Your task to perform on an android device: turn pop-ups off in chrome Image 0: 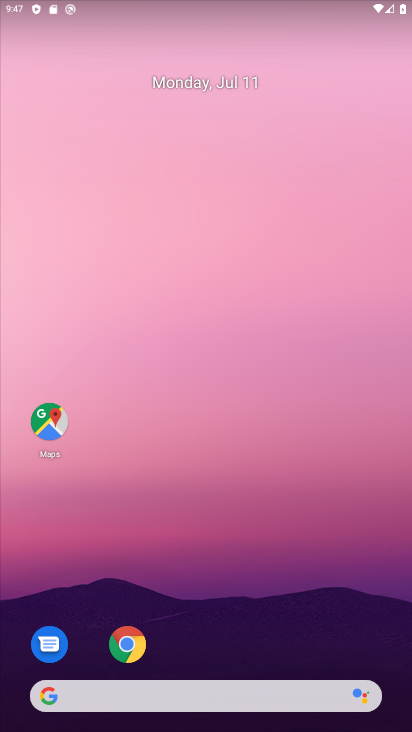
Step 0: click (130, 642)
Your task to perform on an android device: turn pop-ups off in chrome Image 1: 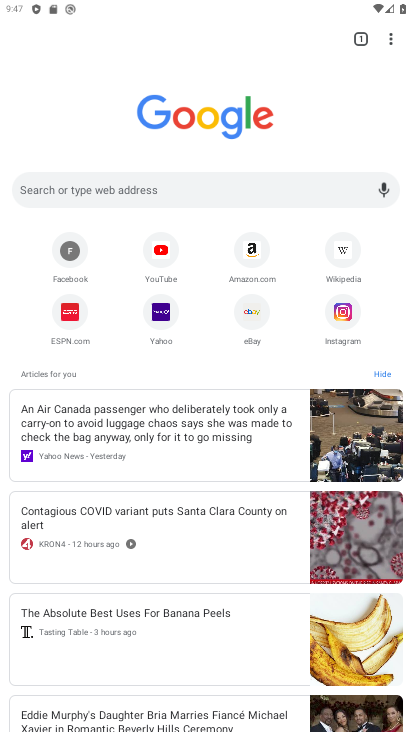
Step 1: click (385, 37)
Your task to perform on an android device: turn pop-ups off in chrome Image 2: 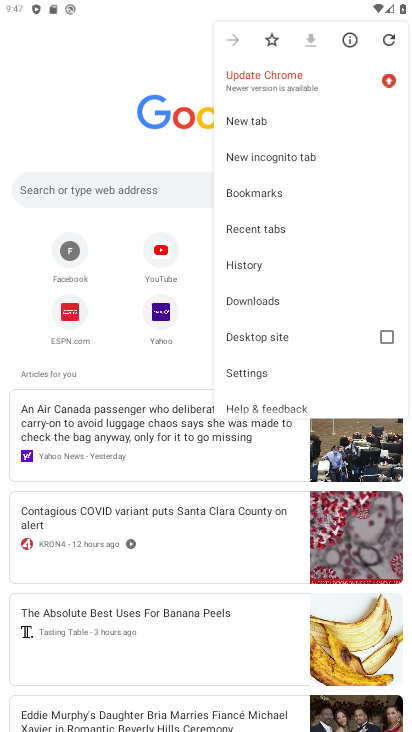
Step 2: click (289, 370)
Your task to perform on an android device: turn pop-ups off in chrome Image 3: 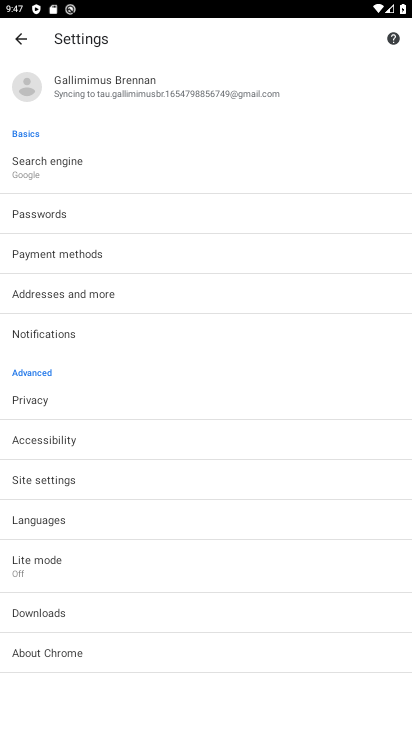
Step 3: click (111, 475)
Your task to perform on an android device: turn pop-ups off in chrome Image 4: 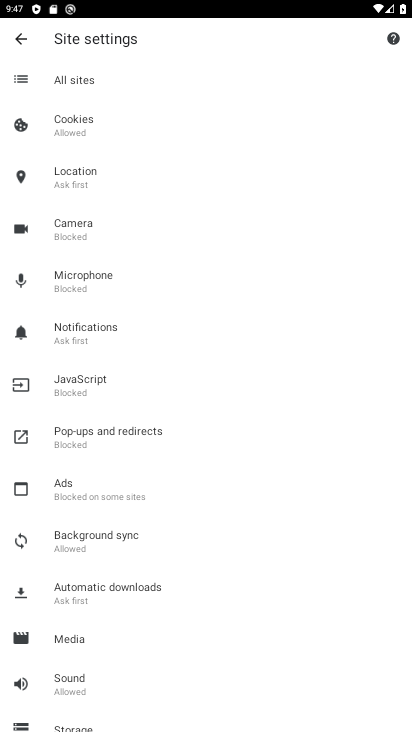
Step 4: click (141, 438)
Your task to perform on an android device: turn pop-ups off in chrome Image 5: 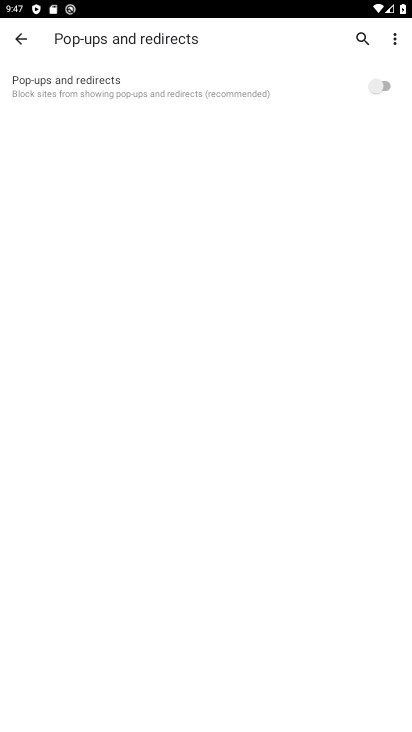
Step 5: task complete